Your task to perform on an android device: all mails in gmail Image 0: 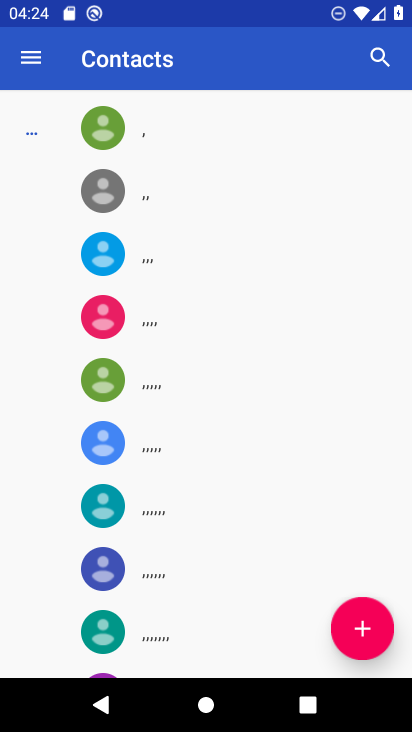
Step 0: press home button
Your task to perform on an android device: all mails in gmail Image 1: 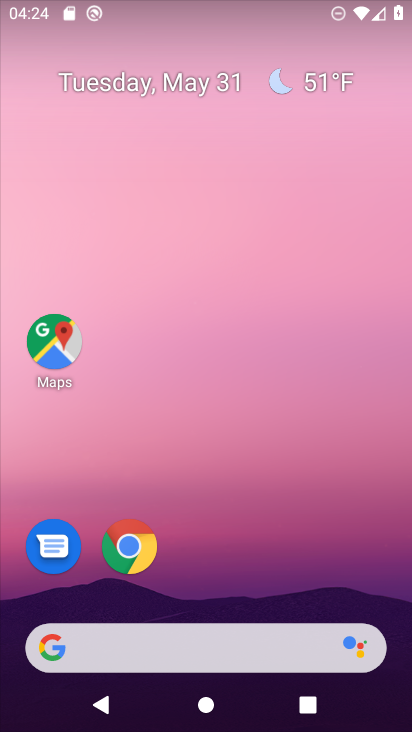
Step 1: drag from (207, 592) to (202, 177)
Your task to perform on an android device: all mails in gmail Image 2: 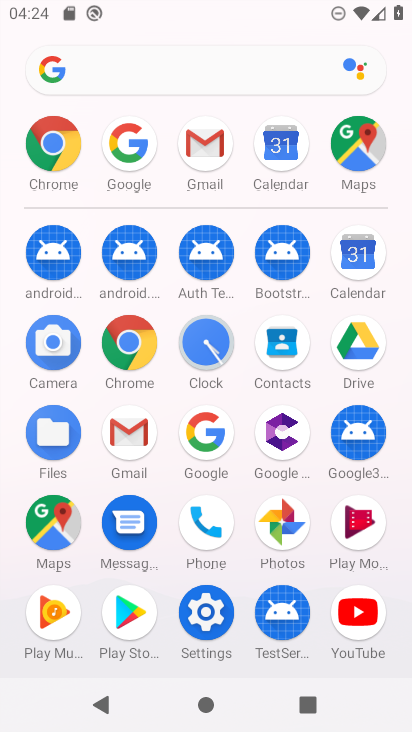
Step 2: click (116, 435)
Your task to perform on an android device: all mails in gmail Image 3: 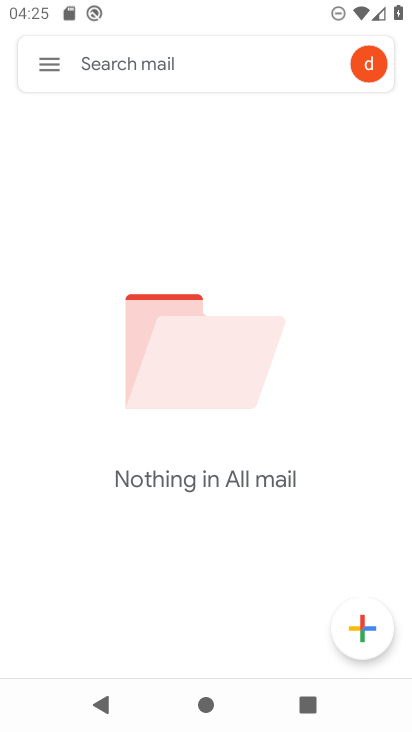
Step 3: task complete